Your task to perform on an android device: change notification settings in the gmail app Image 0: 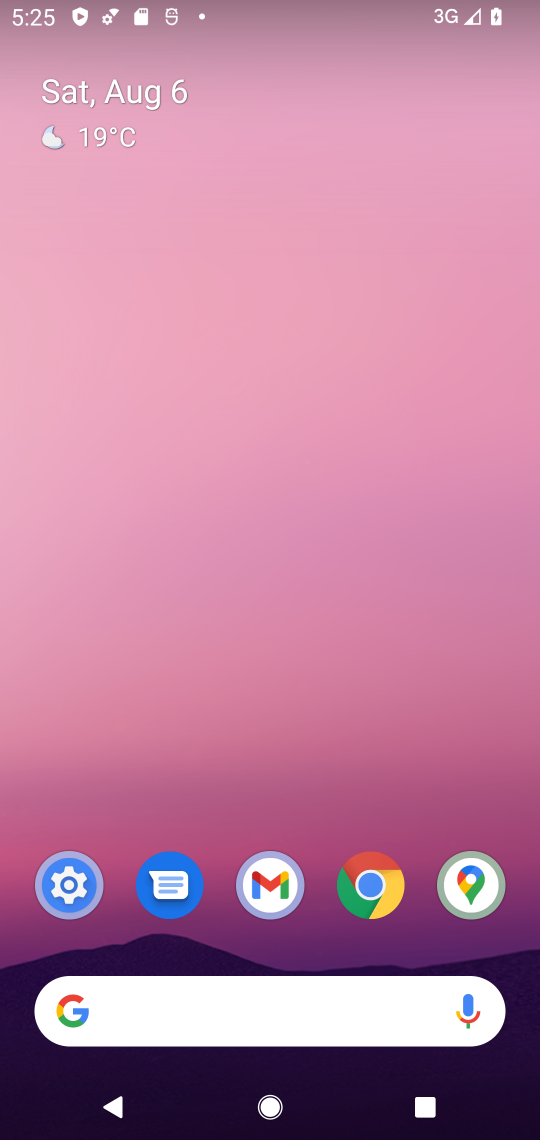
Step 0: drag from (398, 685) to (304, 3)
Your task to perform on an android device: change notification settings in the gmail app Image 1: 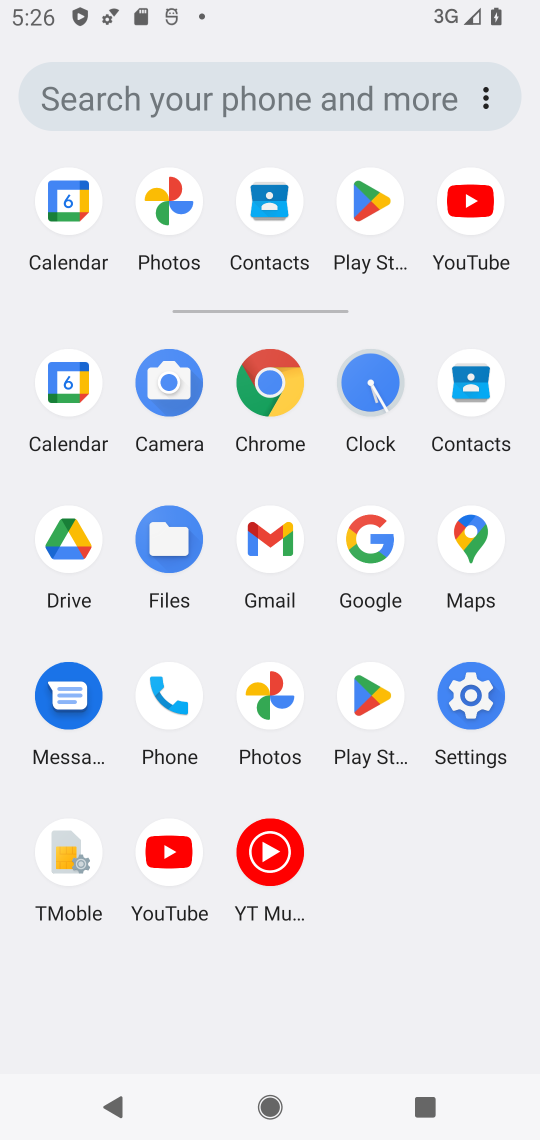
Step 1: click (264, 558)
Your task to perform on an android device: change notification settings in the gmail app Image 2: 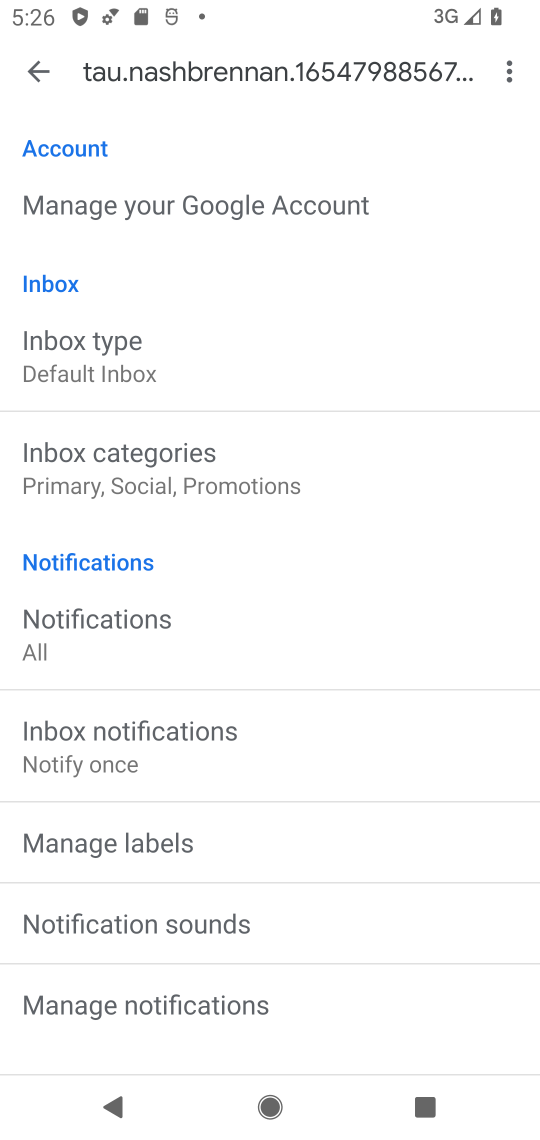
Step 2: click (141, 666)
Your task to perform on an android device: change notification settings in the gmail app Image 3: 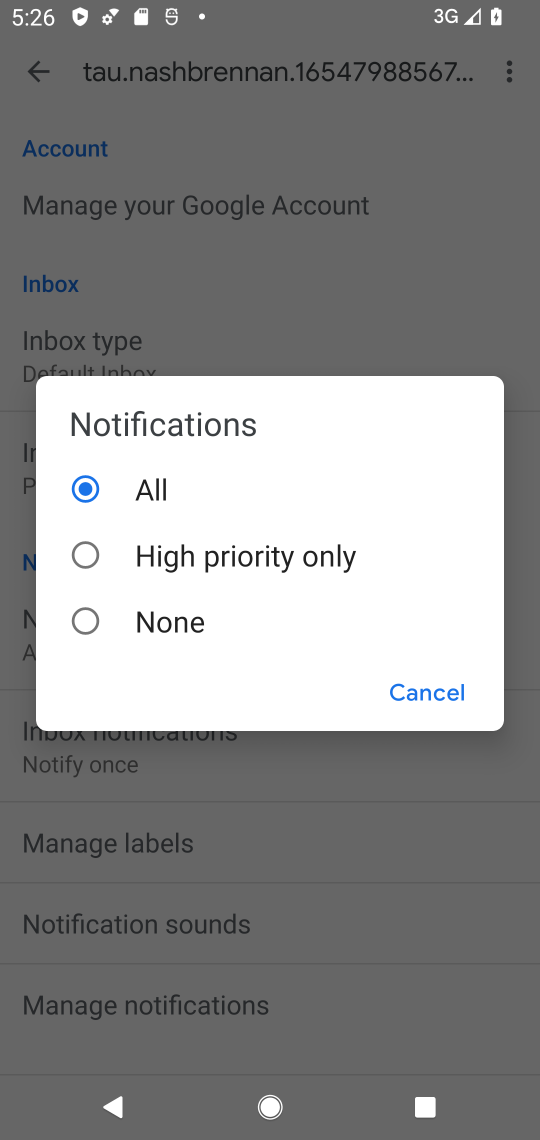
Step 3: click (103, 618)
Your task to perform on an android device: change notification settings in the gmail app Image 4: 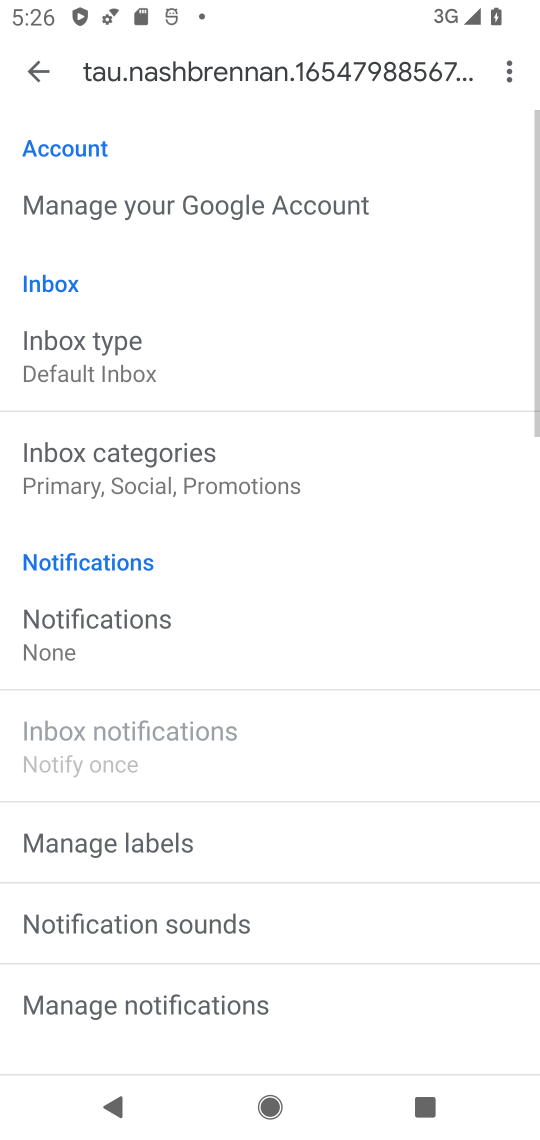
Step 4: task complete